Your task to perform on an android device: Search for pizza restaurants on Maps Image 0: 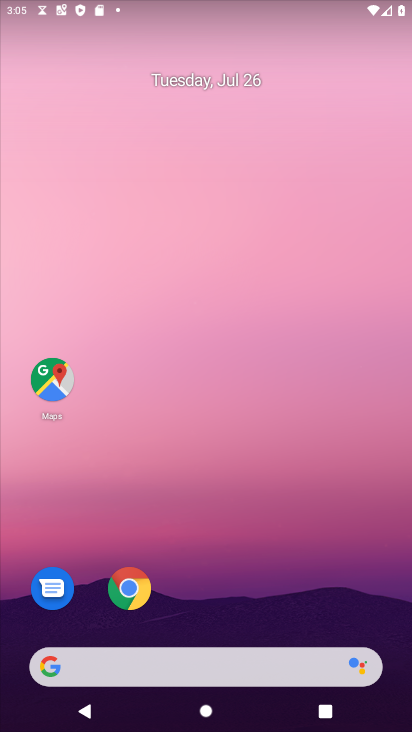
Step 0: drag from (249, 578) to (359, 12)
Your task to perform on an android device: Search for pizza restaurants on Maps Image 1: 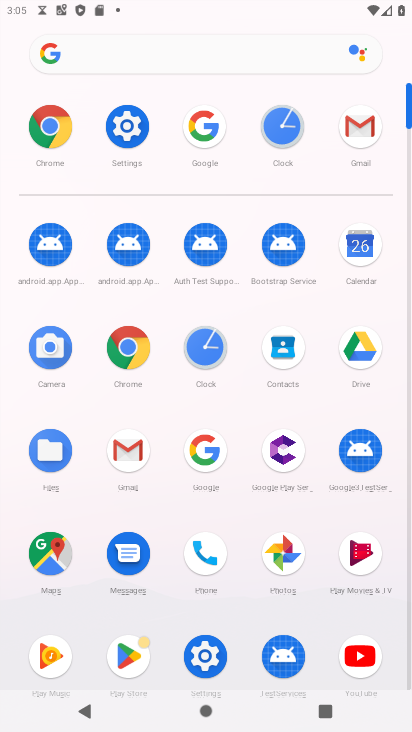
Step 1: click (59, 555)
Your task to perform on an android device: Search for pizza restaurants on Maps Image 2: 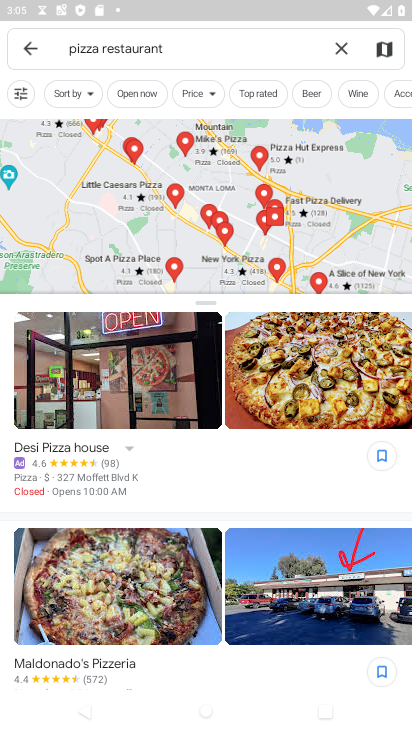
Step 2: task complete